Your task to perform on an android device: turn on the 24-hour format for clock Image 0: 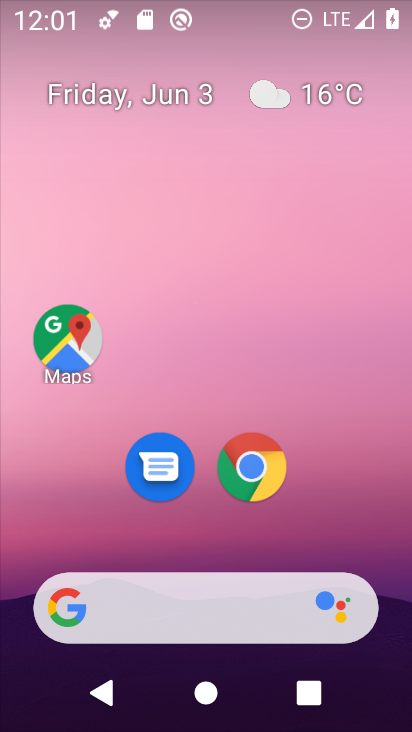
Step 0: drag from (398, 626) to (278, 4)
Your task to perform on an android device: turn on the 24-hour format for clock Image 1: 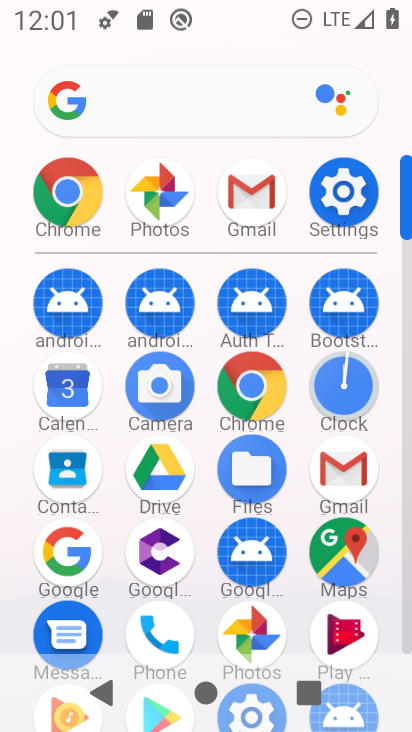
Step 1: click (345, 384)
Your task to perform on an android device: turn on the 24-hour format for clock Image 2: 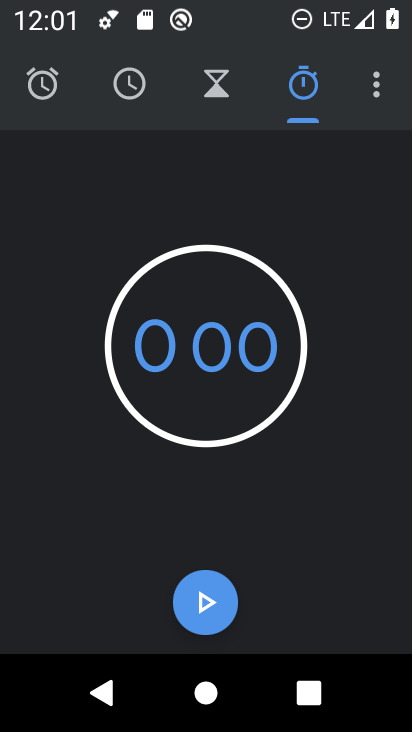
Step 2: click (373, 94)
Your task to perform on an android device: turn on the 24-hour format for clock Image 3: 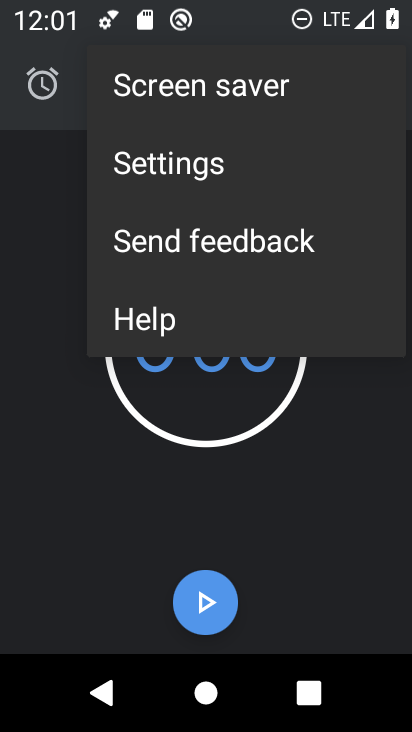
Step 3: click (177, 171)
Your task to perform on an android device: turn on the 24-hour format for clock Image 4: 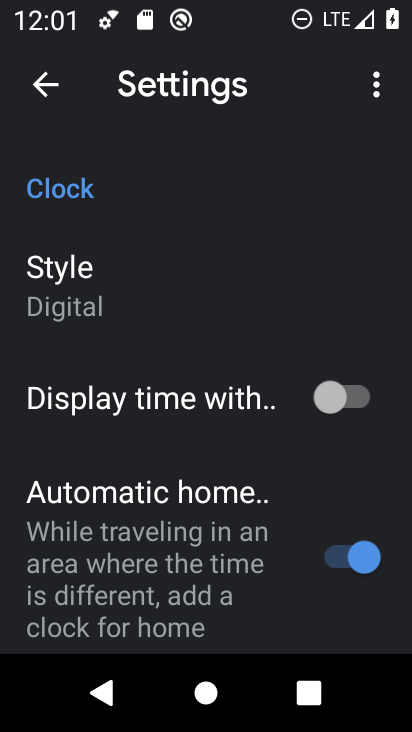
Step 4: drag from (263, 582) to (222, 263)
Your task to perform on an android device: turn on the 24-hour format for clock Image 5: 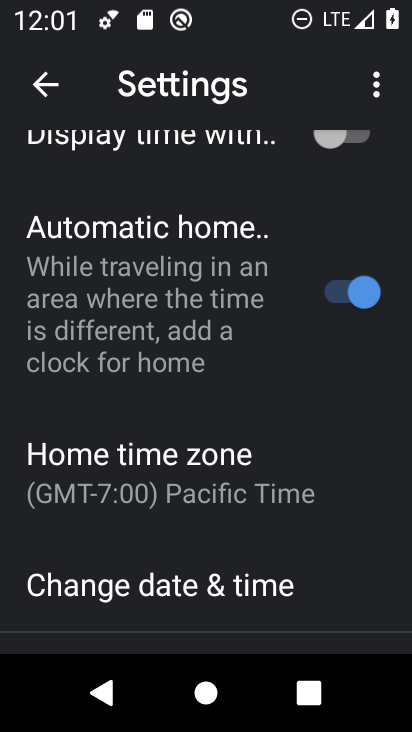
Step 5: drag from (212, 561) to (187, 338)
Your task to perform on an android device: turn on the 24-hour format for clock Image 6: 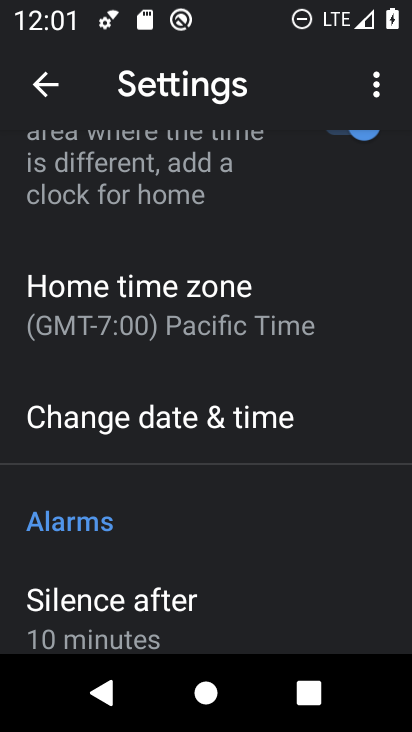
Step 6: click (156, 423)
Your task to perform on an android device: turn on the 24-hour format for clock Image 7: 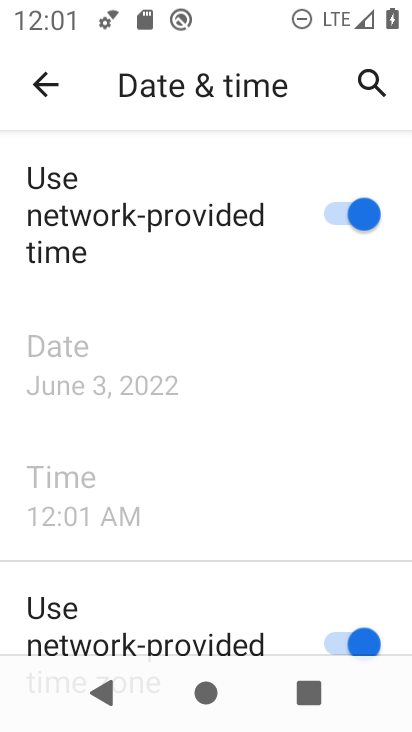
Step 7: drag from (271, 562) to (244, 87)
Your task to perform on an android device: turn on the 24-hour format for clock Image 8: 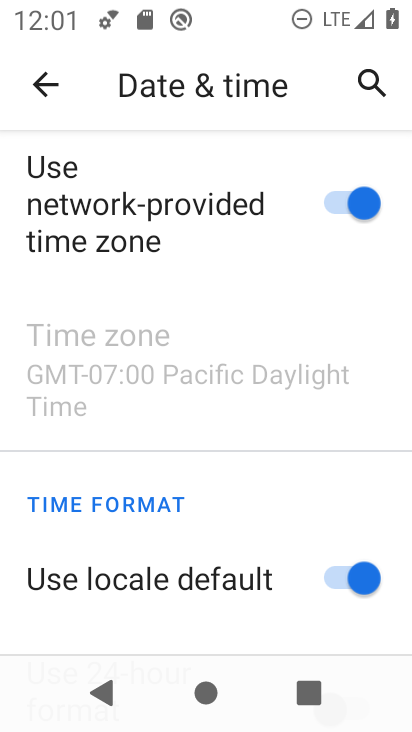
Step 8: drag from (266, 530) to (233, 172)
Your task to perform on an android device: turn on the 24-hour format for clock Image 9: 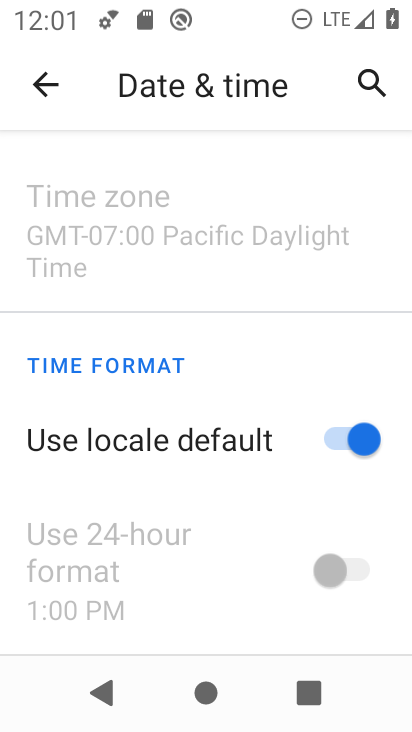
Step 9: click (335, 440)
Your task to perform on an android device: turn on the 24-hour format for clock Image 10: 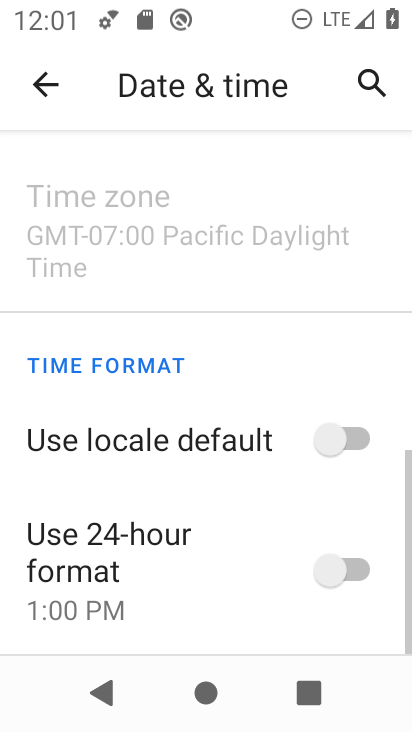
Step 10: click (354, 569)
Your task to perform on an android device: turn on the 24-hour format for clock Image 11: 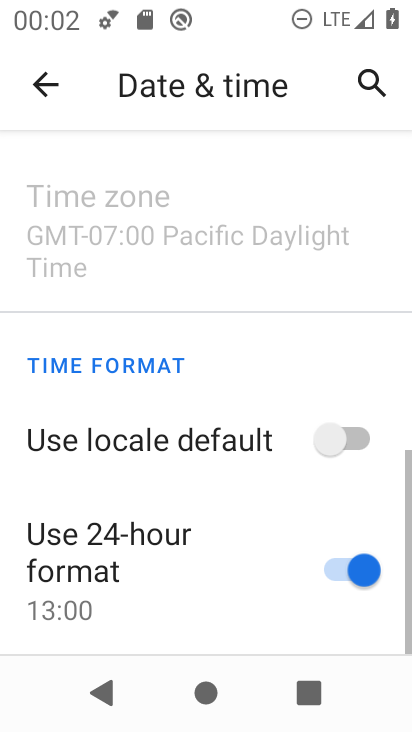
Step 11: task complete